Your task to perform on an android device: Open ESPN.com Image 0: 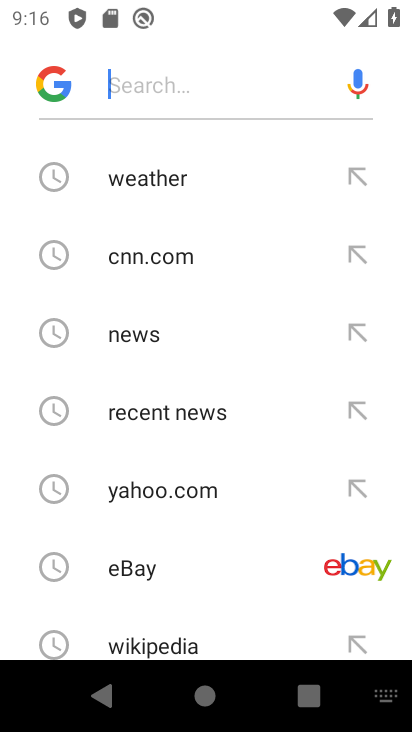
Step 0: type "espn.com"
Your task to perform on an android device: Open ESPN.com Image 1: 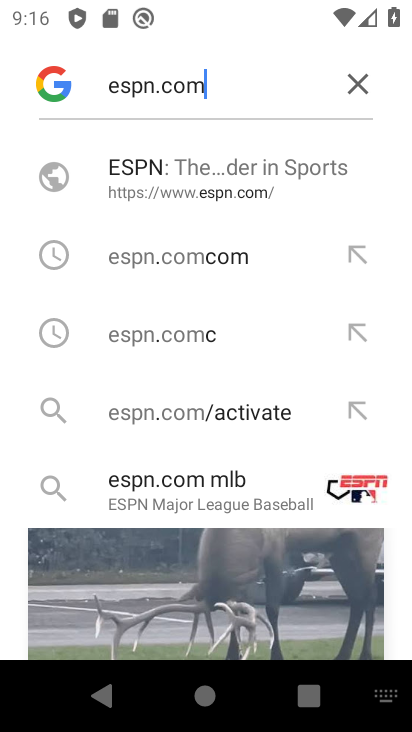
Step 1: click (117, 174)
Your task to perform on an android device: Open ESPN.com Image 2: 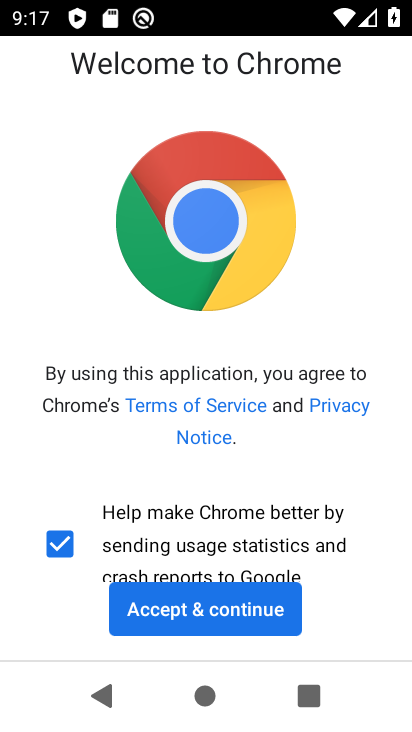
Step 2: click (217, 606)
Your task to perform on an android device: Open ESPN.com Image 3: 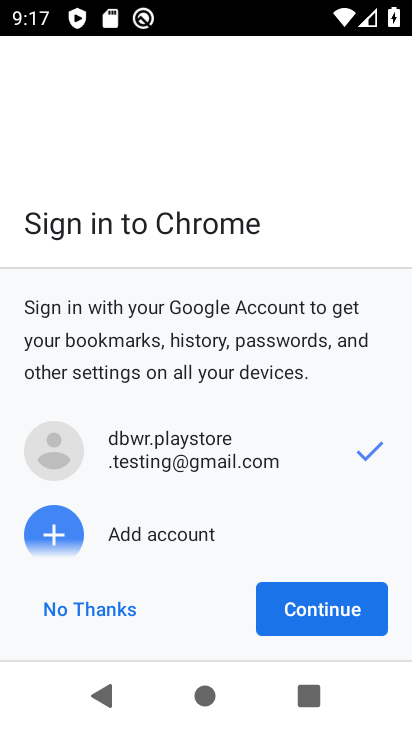
Step 3: click (85, 607)
Your task to perform on an android device: Open ESPN.com Image 4: 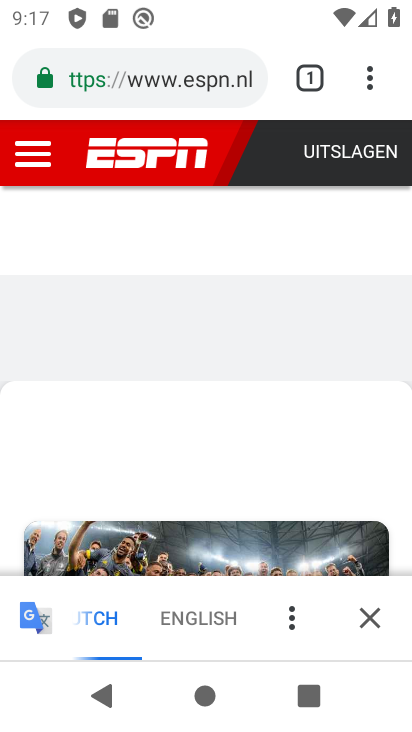
Step 4: task complete